Your task to perform on an android device: turn on the 12-hour format for clock Image 0: 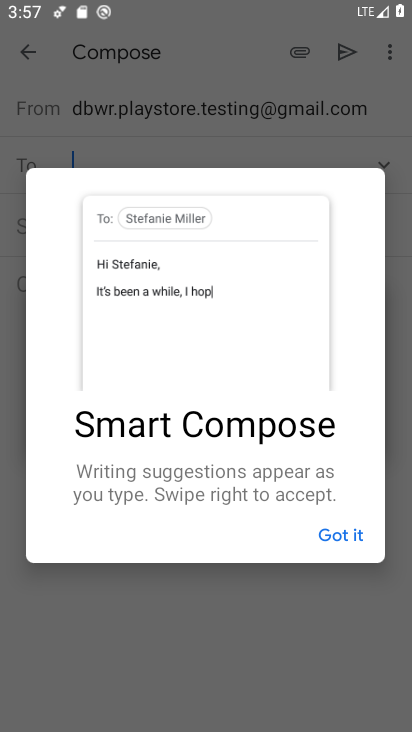
Step 0: press home button
Your task to perform on an android device: turn on the 12-hour format for clock Image 1: 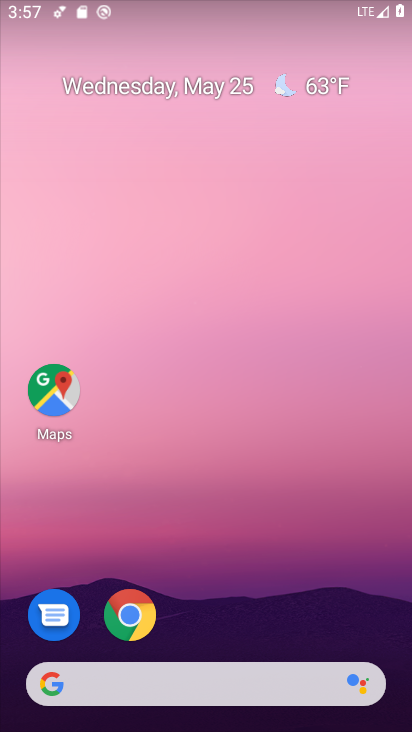
Step 1: drag from (321, 587) to (232, 33)
Your task to perform on an android device: turn on the 12-hour format for clock Image 2: 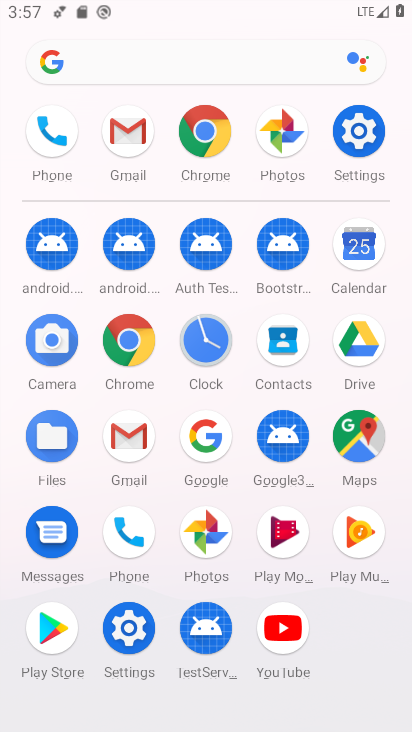
Step 2: click (214, 338)
Your task to perform on an android device: turn on the 12-hour format for clock Image 3: 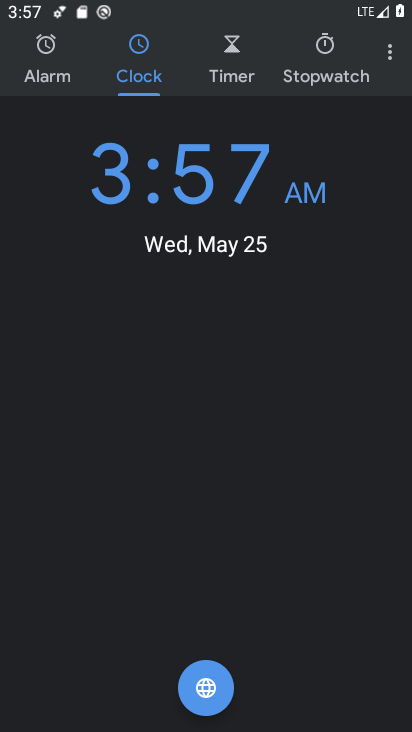
Step 3: click (397, 50)
Your task to perform on an android device: turn on the 12-hour format for clock Image 4: 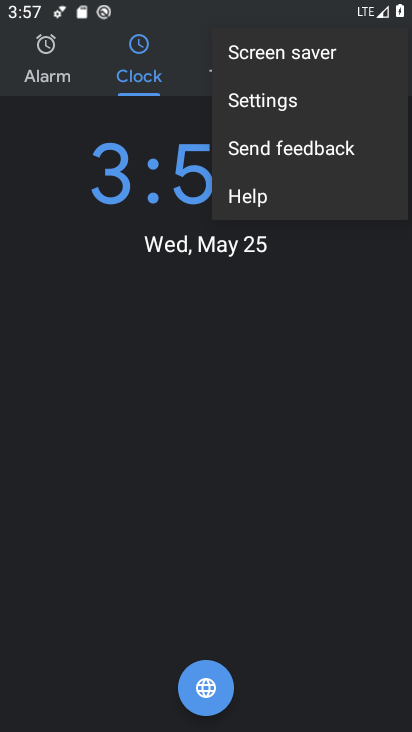
Step 4: click (282, 99)
Your task to perform on an android device: turn on the 12-hour format for clock Image 5: 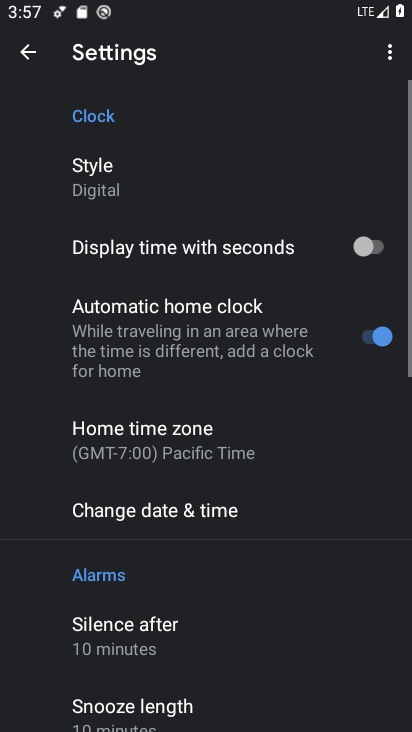
Step 5: click (238, 501)
Your task to perform on an android device: turn on the 12-hour format for clock Image 6: 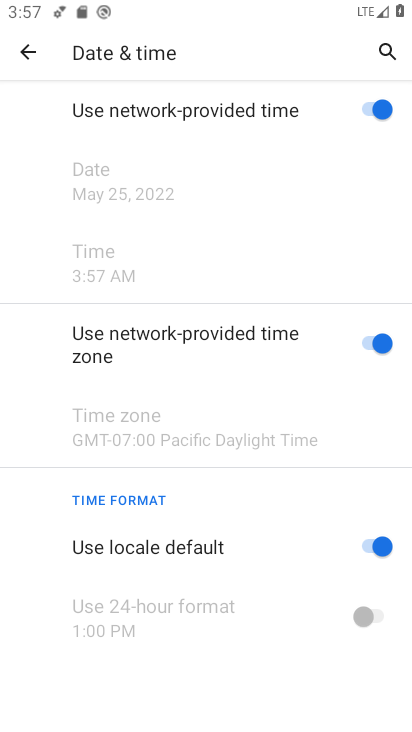
Step 6: task complete